Your task to perform on an android device: change the clock display to analog Image 0: 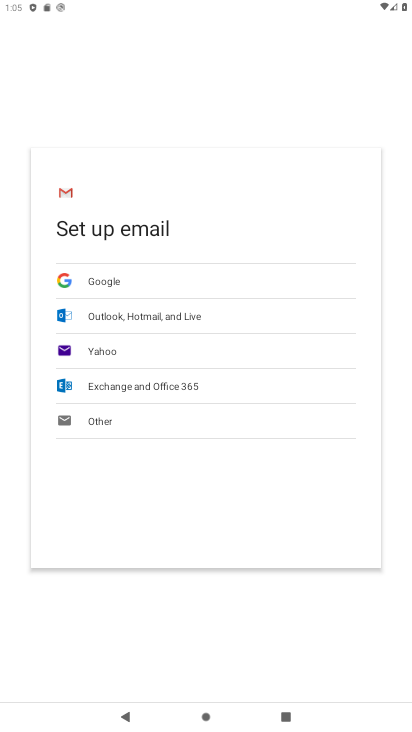
Step 0: press home button
Your task to perform on an android device: change the clock display to analog Image 1: 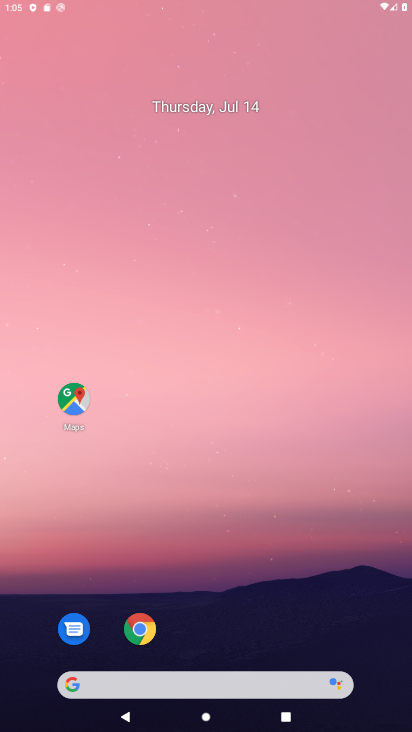
Step 1: drag from (216, 488) to (240, 302)
Your task to perform on an android device: change the clock display to analog Image 2: 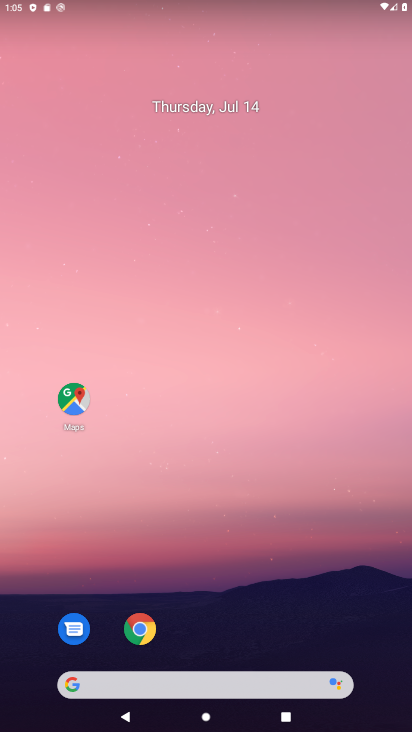
Step 2: drag from (177, 652) to (246, 235)
Your task to perform on an android device: change the clock display to analog Image 3: 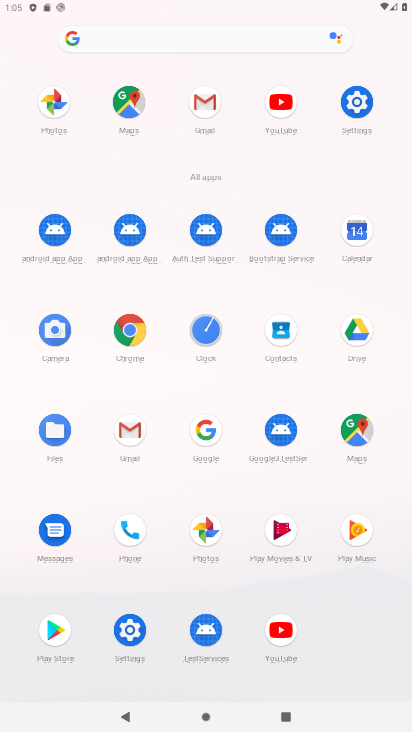
Step 3: drag from (172, 600) to (205, 135)
Your task to perform on an android device: change the clock display to analog Image 4: 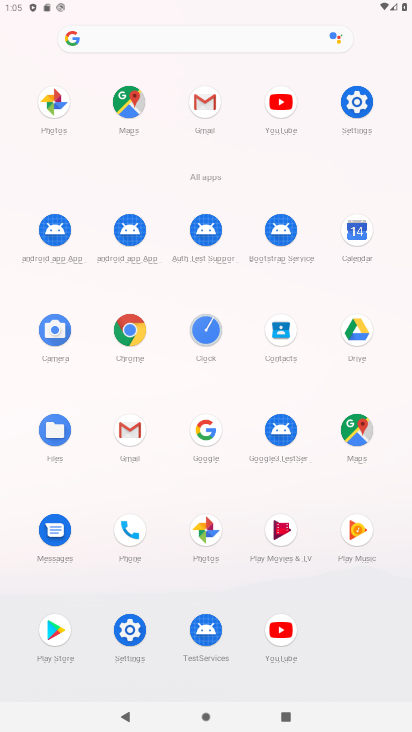
Step 4: drag from (212, 635) to (190, 165)
Your task to perform on an android device: change the clock display to analog Image 5: 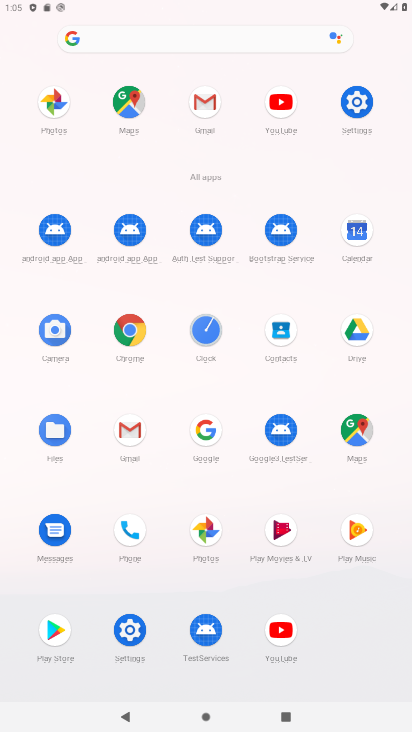
Step 5: click (209, 327)
Your task to perform on an android device: change the clock display to analog Image 6: 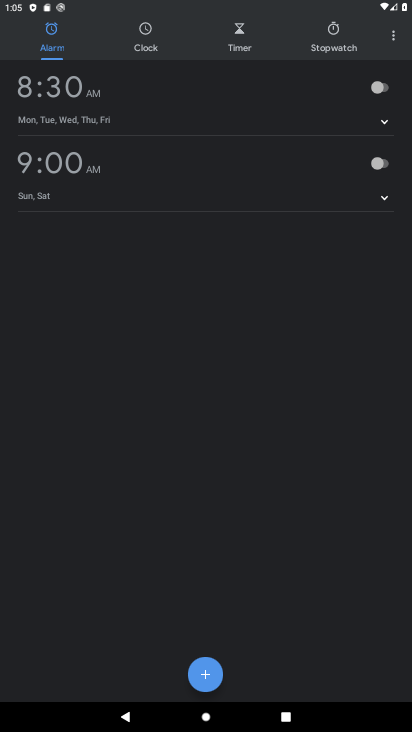
Step 6: click (379, 29)
Your task to perform on an android device: change the clock display to analog Image 7: 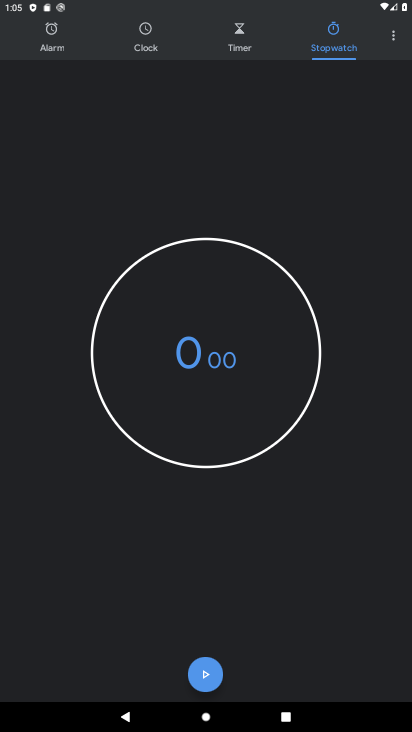
Step 7: click (401, 33)
Your task to perform on an android device: change the clock display to analog Image 8: 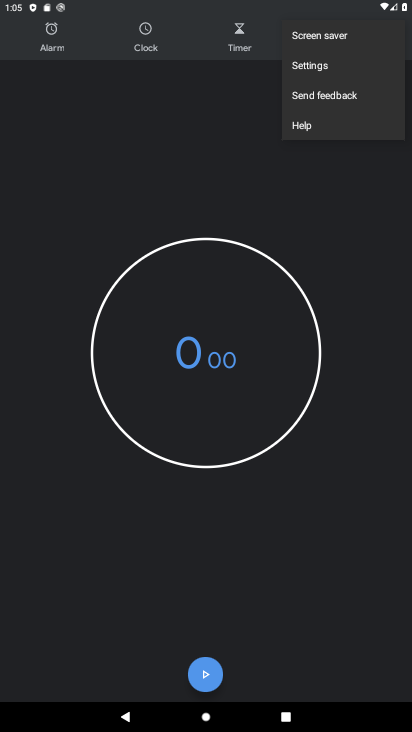
Step 8: click (327, 61)
Your task to perform on an android device: change the clock display to analog Image 9: 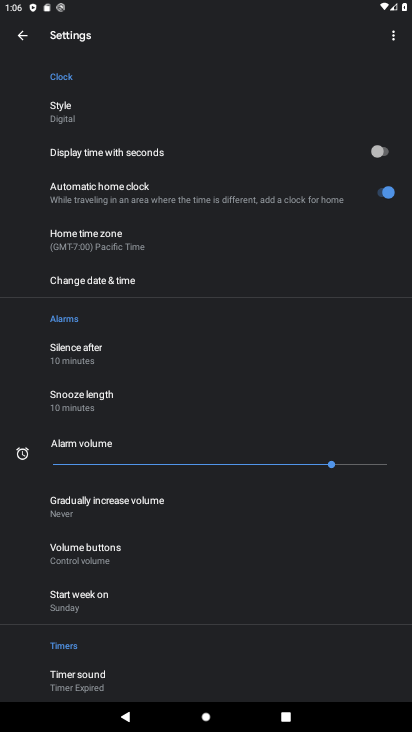
Step 9: click (66, 114)
Your task to perform on an android device: change the clock display to analog Image 10: 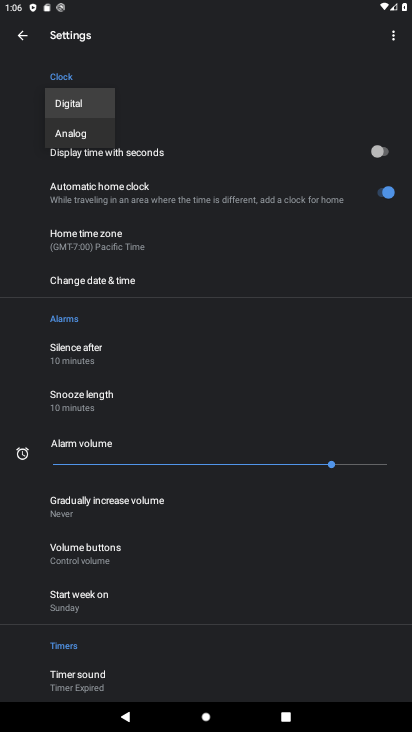
Step 10: click (59, 128)
Your task to perform on an android device: change the clock display to analog Image 11: 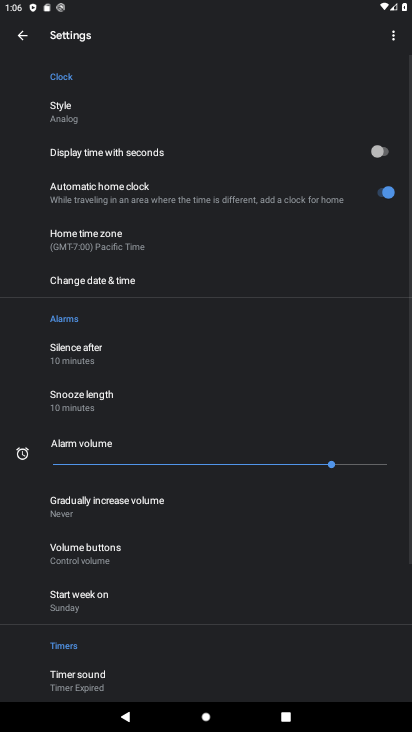
Step 11: click (272, 42)
Your task to perform on an android device: change the clock display to analog Image 12: 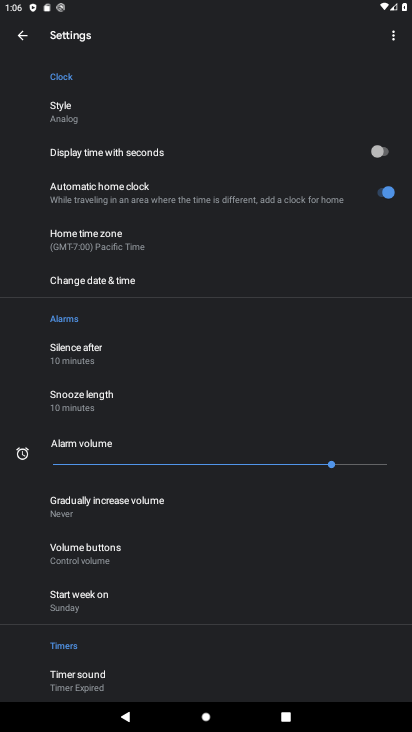
Step 12: drag from (217, 575) to (281, 230)
Your task to perform on an android device: change the clock display to analog Image 13: 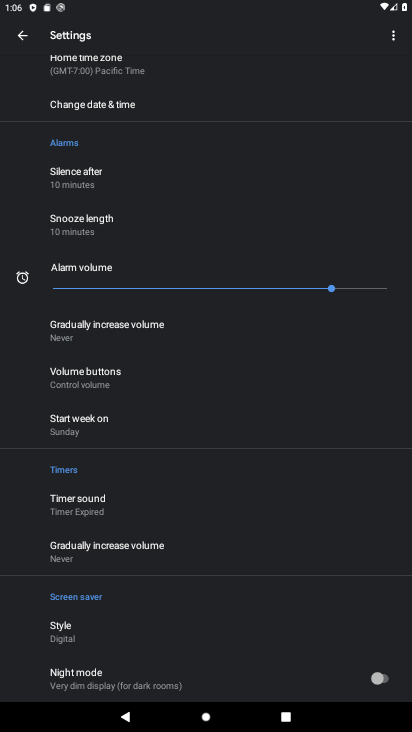
Step 13: drag from (248, 654) to (280, 238)
Your task to perform on an android device: change the clock display to analog Image 14: 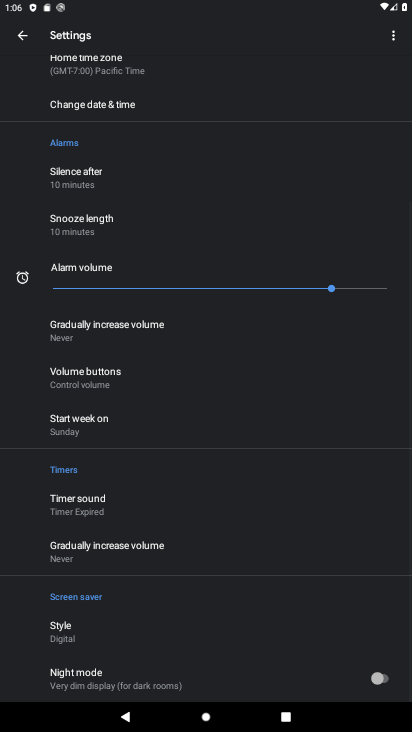
Step 14: drag from (247, 190) to (325, 731)
Your task to perform on an android device: change the clock display to analog Image 15: 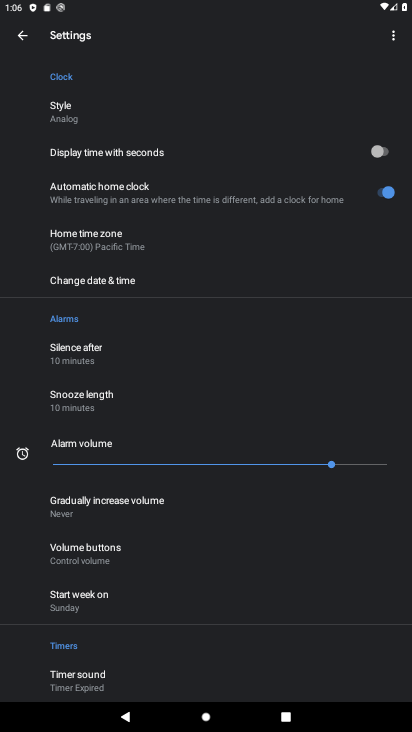
Step 15: drag from (192, 217) to (273, 523)
Your task to perform on an android device: change the clock display to analog Image 16: 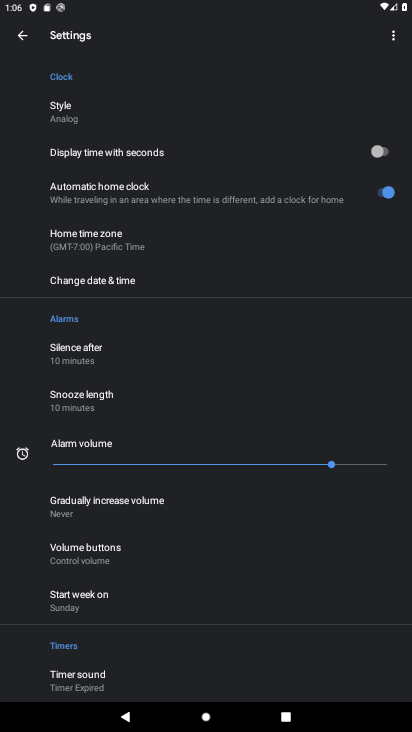
Step 16: drag from (218, 140) to (306, 585)
Your task to perform on an android device: change the clock display to analog Image 17: 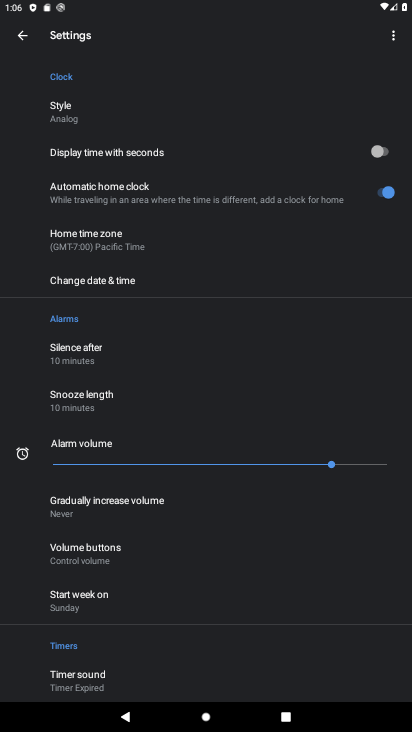
Step 17: drag from (126, 108) to (332, 560)
Your task to perform on an android device: change the clock display to analog Image 18: 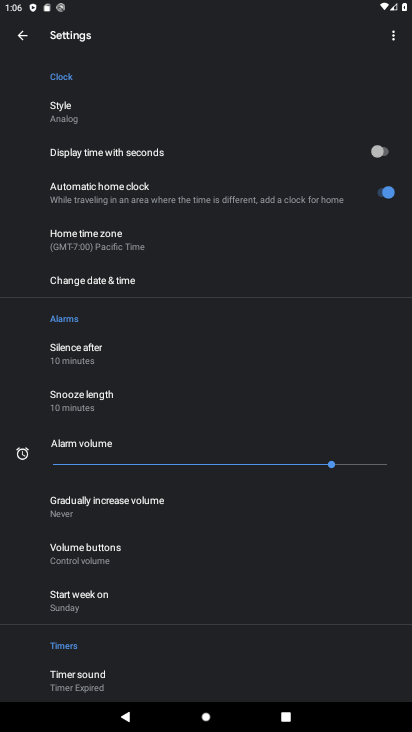
Step 18: drag from (185, 465) to (197, 169)
Your task to perform on an android device: change the clock display to analog Image 19: 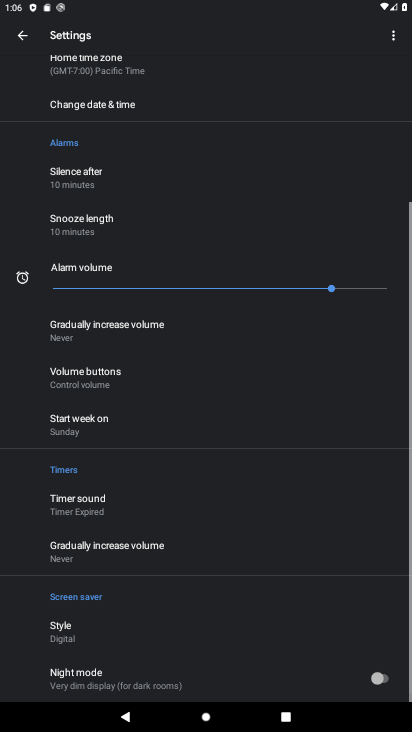
Step 19: drag from (193, 133) to (204, 656)
Your task to perform on an android device: change the clock display to analog Image 20: 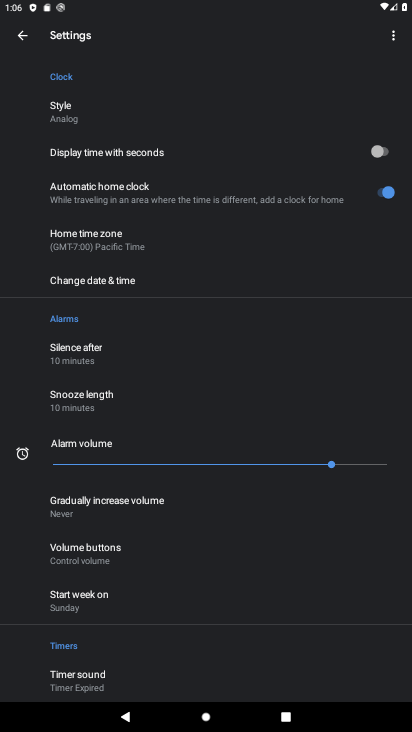
Step 20: drag from (183, 508) to (195, 166)
Your task to perform on an android device: change the clock display to analog Image 21: 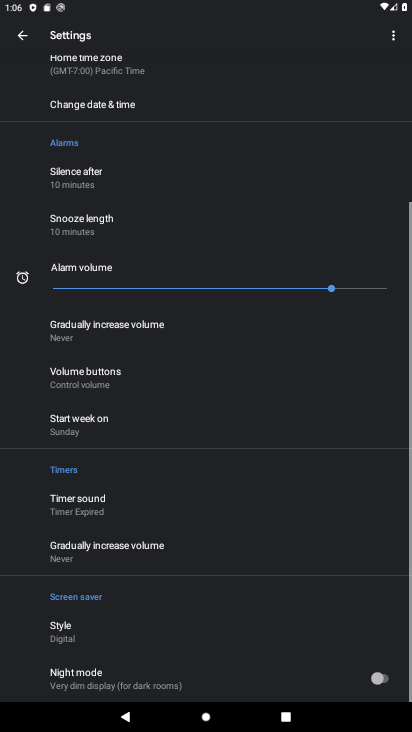
Step 21: drag from (190, 213) to (333, 729)
Your task to perform on an android device: change the clock display to analog Image 22: 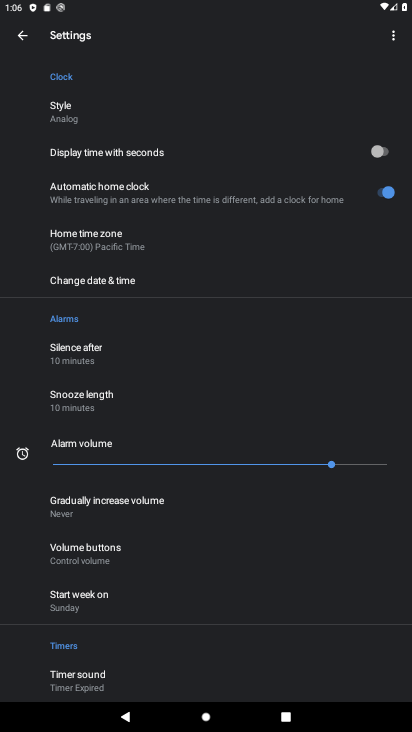
Step 22: click (94, 105)
Your task to perform on an android device: change the clock display to analog Image 23: 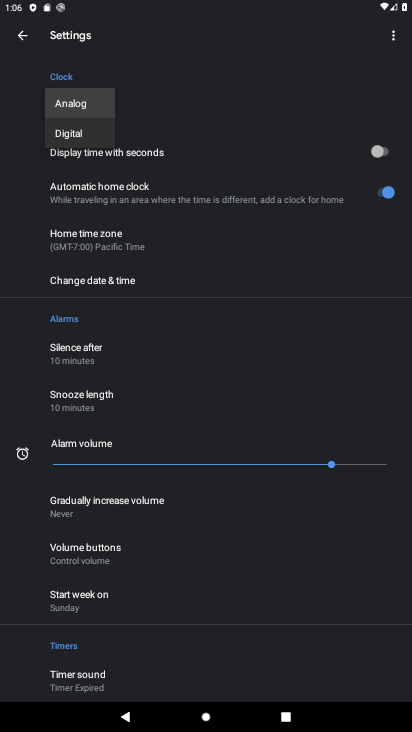
Step 23: click (84, 106)
Your task to perform on an android device: change the clock display to analog Image 24: 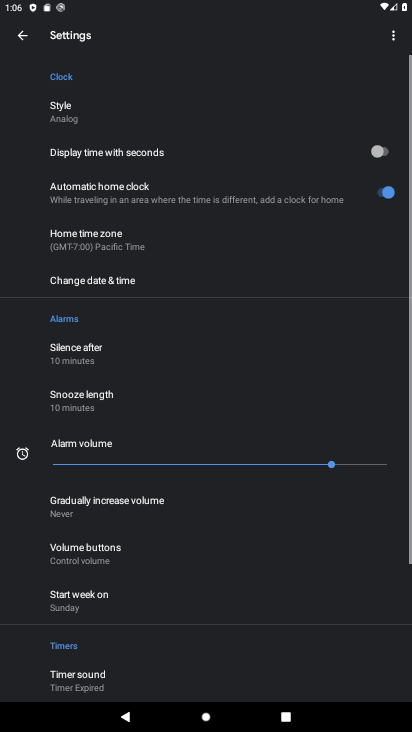
Step 24: task complete